Your task to perform on an android device: Empty the shopping cart on costco. Search for "dell xps" on costco, select the first entry, and add it to the cart. Image 0: 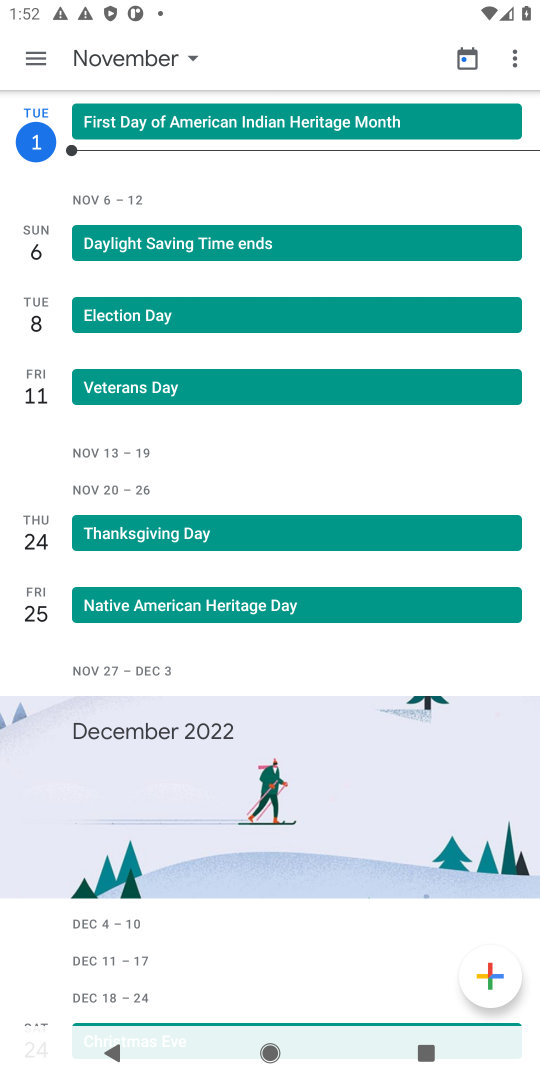
Step 0: press home button
Your task to perform on an android device: Empty the shopping cart on costco. Search for "dell xps" on costco, select the first entry, and add it to the cart. Image 1: 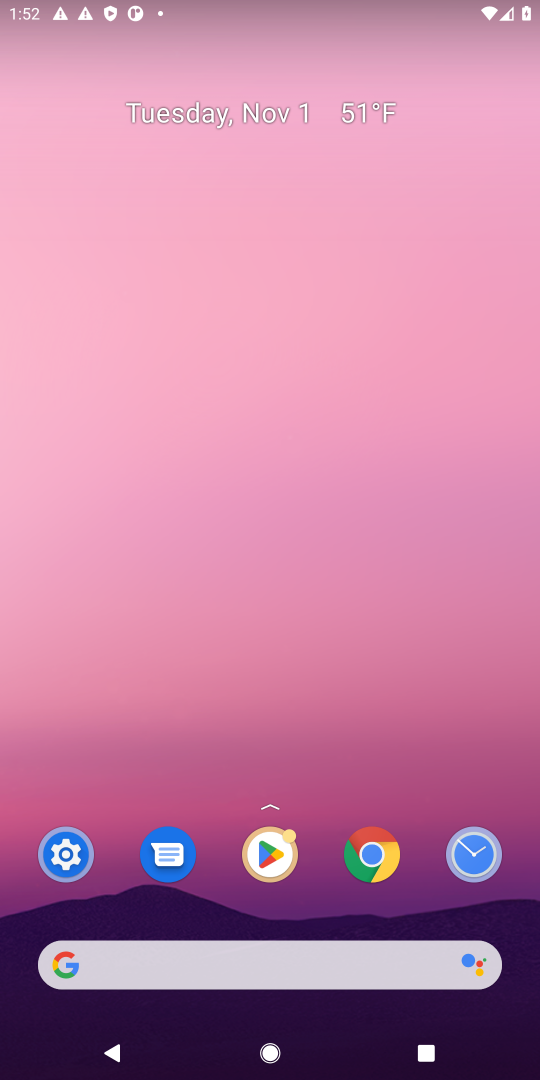
Step 1: click (199, 948)
Your task to perform on an android device: Empty the shopping cart on costco. Search for "dell xps" on costco, select the first entry, and add it to the cart. Image 2: 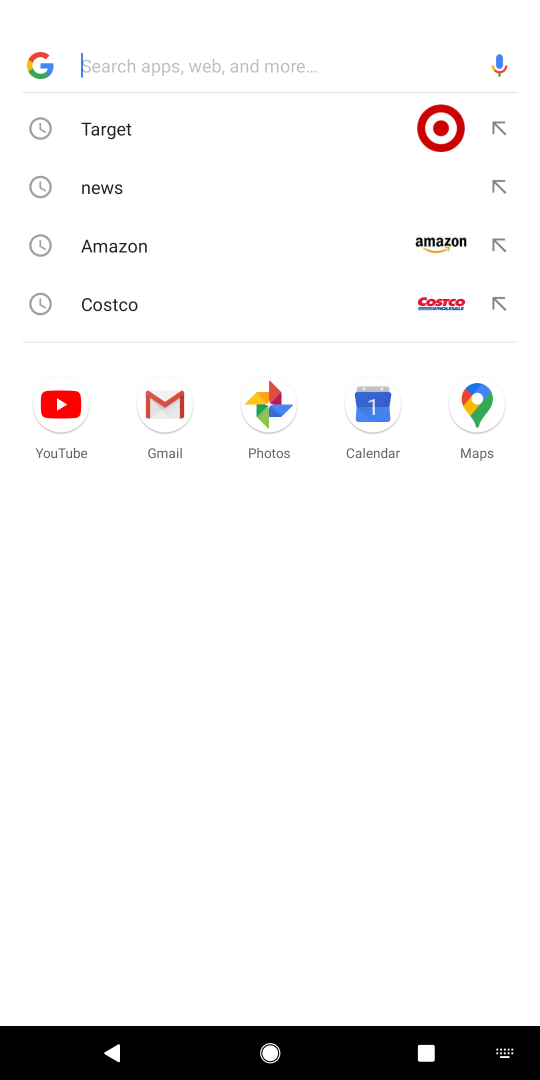
Step 2: click (130, 295)
Your task to perform on an android device: Empty the shopping cart on costco. Search for "dell xps" on costco, select the first entry, and add it to the cart. Image 3: 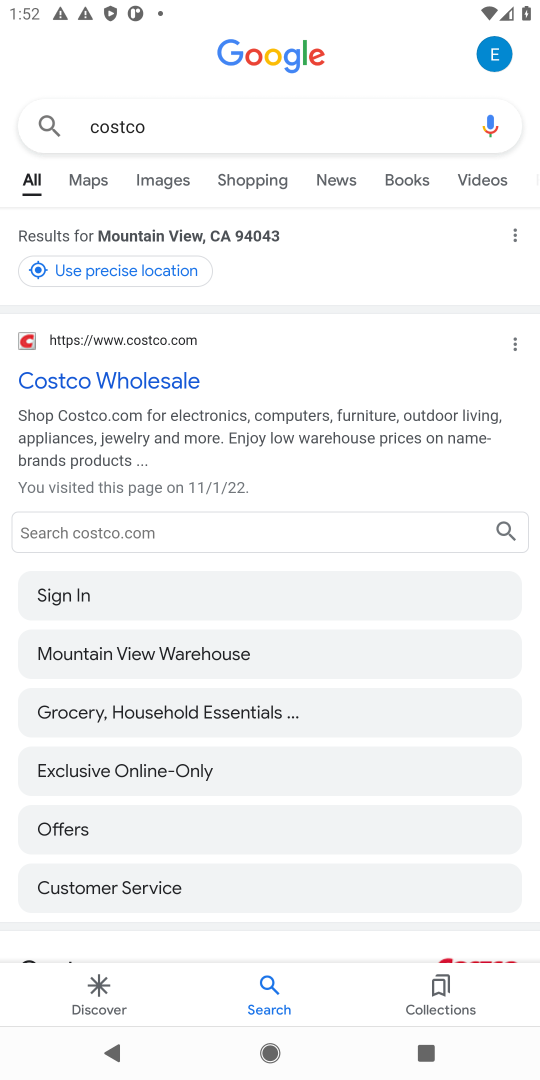
Step 3: click (121, 377)
Your task to perform on an android device: Empty the shopping cart on costco. Search for "dell xps" on costco, select the first entry, and add it to the cart. Image 4: 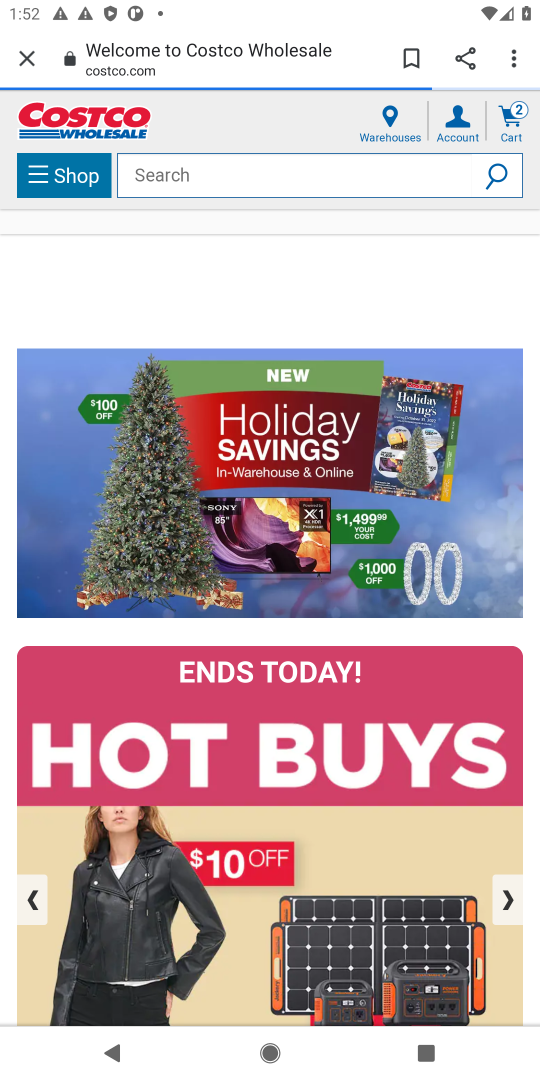
Step 4: click (284, 169)
Your task to perform on an android device: Empty the shopping cart on costco. Search for "dell xps" on costco, select the first entry, and add it to the cart. Image 5: 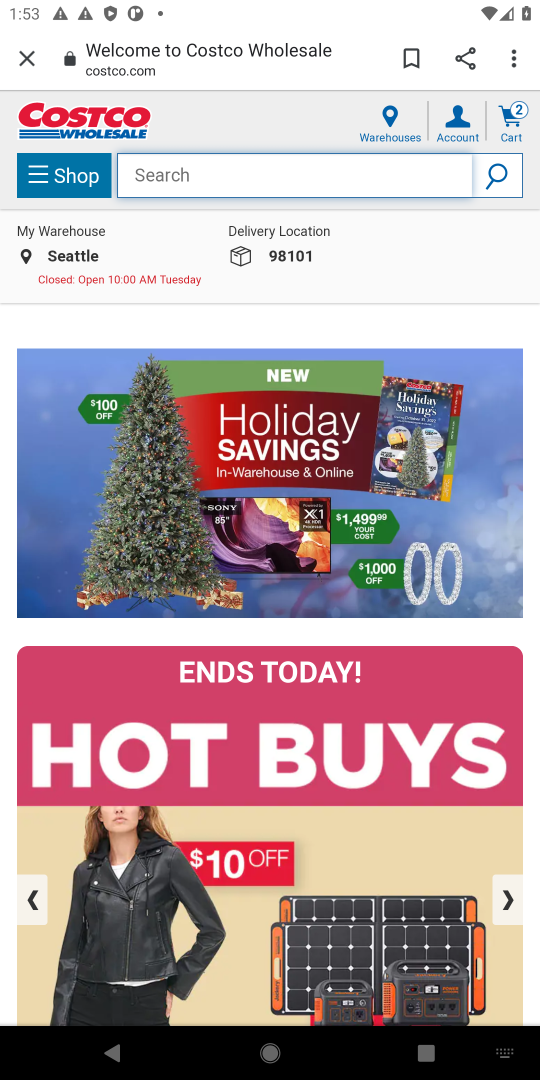
Step 5: type "dell xps"
Your task to perform on an android device: Empty the shopping cart on costco. Search for "dell xps" on costco, select the first entry, and add it to the cart. Image 6: 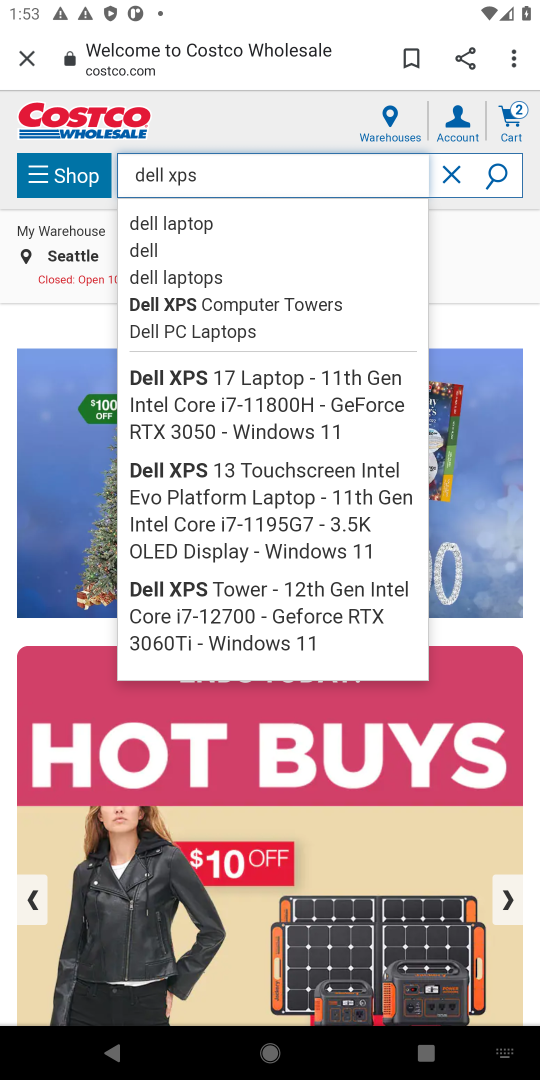
Step 6: click (184, 220)
Your task to perform on an android device: Empty the shopping cart on costco. Search for "dell xps" on costco, select the first entry, and add it to the cart. Image 7: 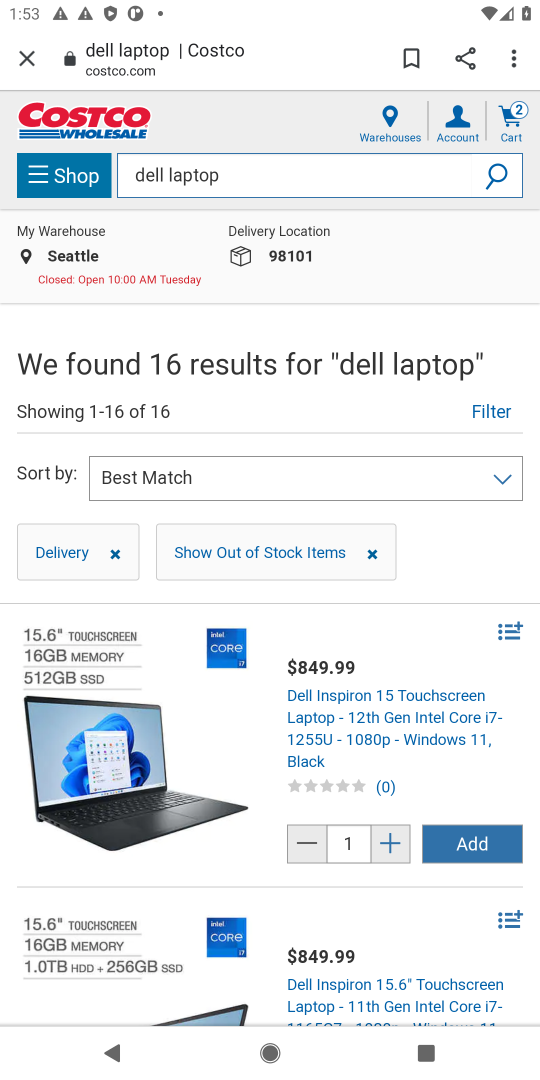
Step 7: click (450, 849)
Your task to perform on an android device: Empty the shopping cart on costco. Search for "dell xps" on costco, select the first entry, and add it to the cart. Image 8: 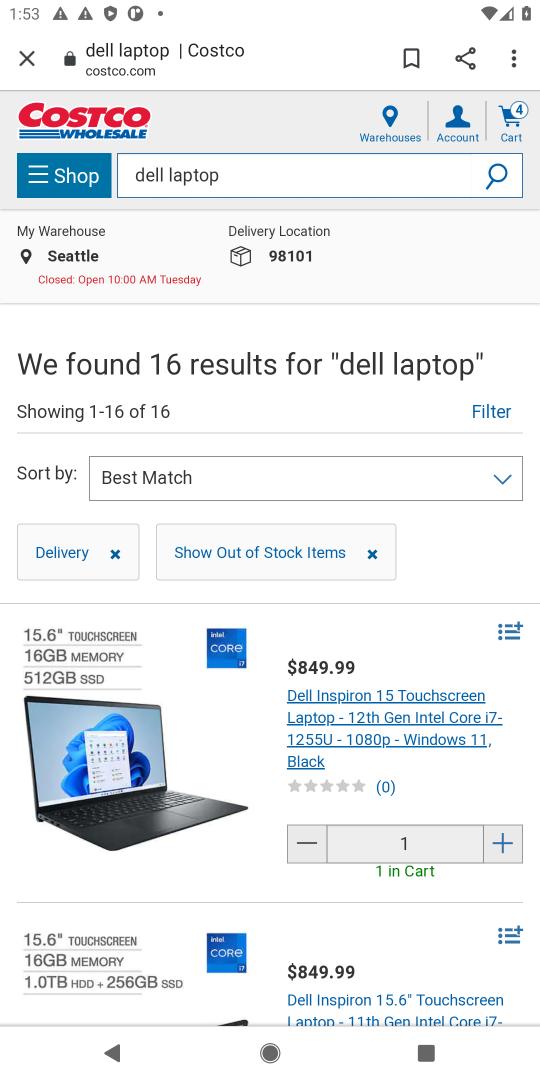
Step 8: task complete